Your task to perform on an android device: Search for vegetarian restaurants on Maps Image 0: 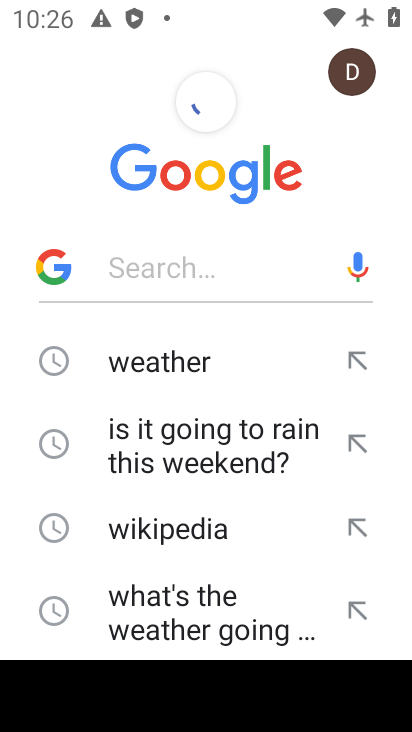
Step 0: press home button
Your task to perform on an android device: Search for vegetarian restaurants on Maps Image 1: 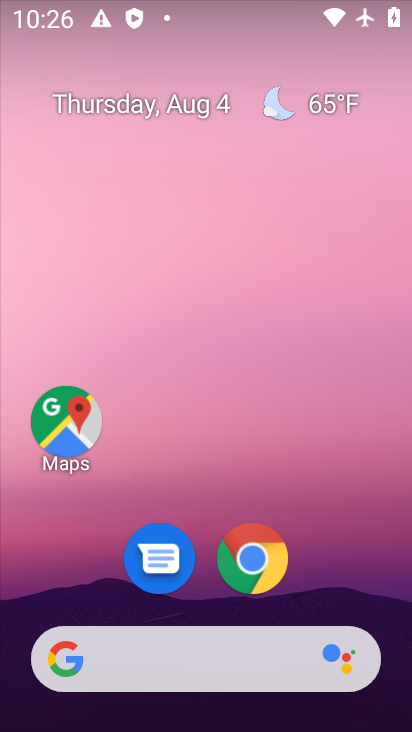
Step 1: drag from (357, 500) to (308, 56)
Your task to perform on an android device: Search for vegetarian restaurants on Maps Image 2: 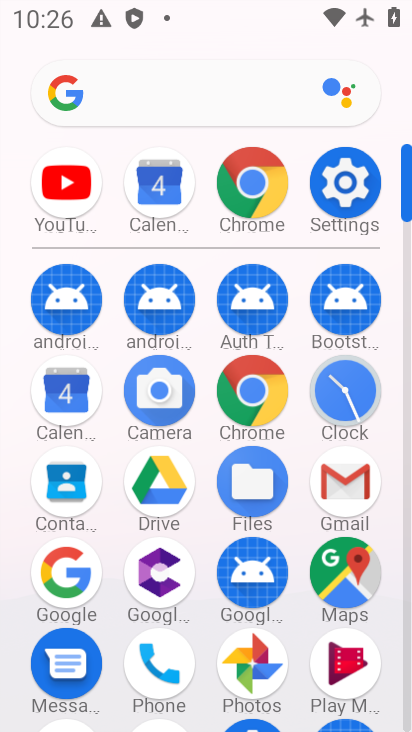
Step 2: click (351, 577)
Your task to perform on an android device: Search for vegetarian restaurants on Maps Image 3: 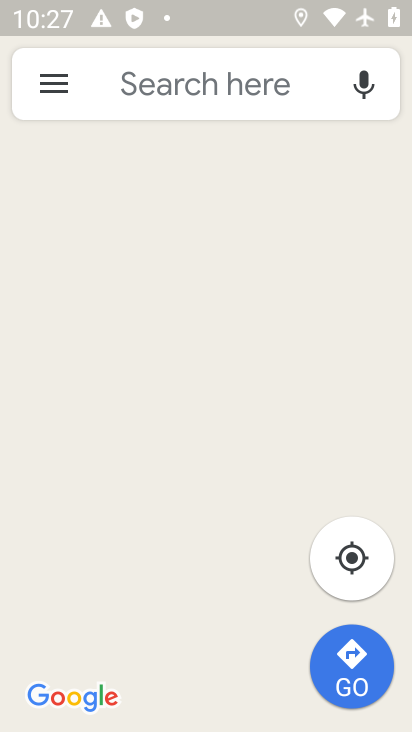
Step 3: click (188, 69)
Your task to perform on an android device: Search for vegetarian restaurants on Maps Image 4: 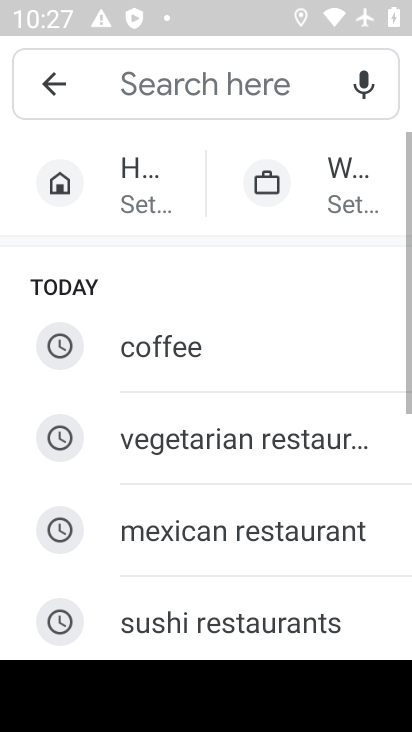
Step 4: click (196, 78)
Your task to perform on an android device: Search for vegetarian restaurants on Maps Image 5: 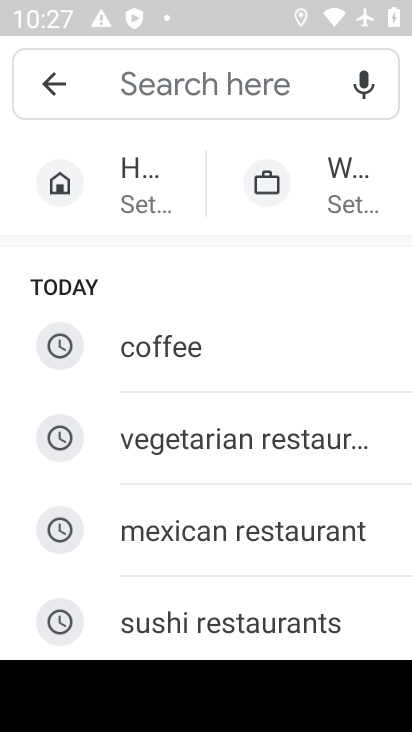
Step 5: type "vegetarian restaurants"
Your task to perform on an android device: Search for vegetarian restaurants on Maps Image 6: 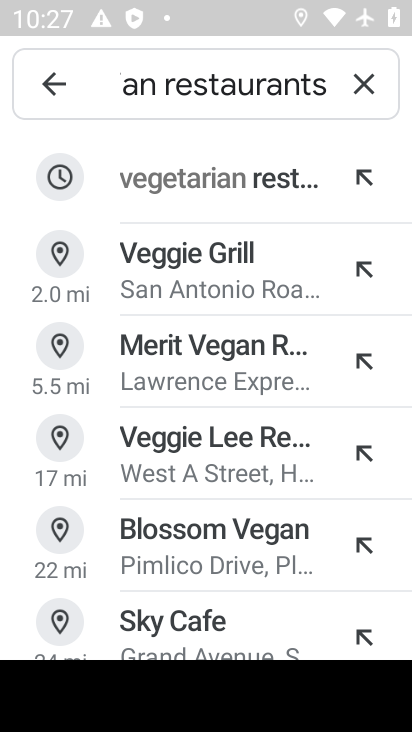
Step 6: press enter
Your task to perform on an android device: Search for vegetarian restaurants on Maps Image 7: 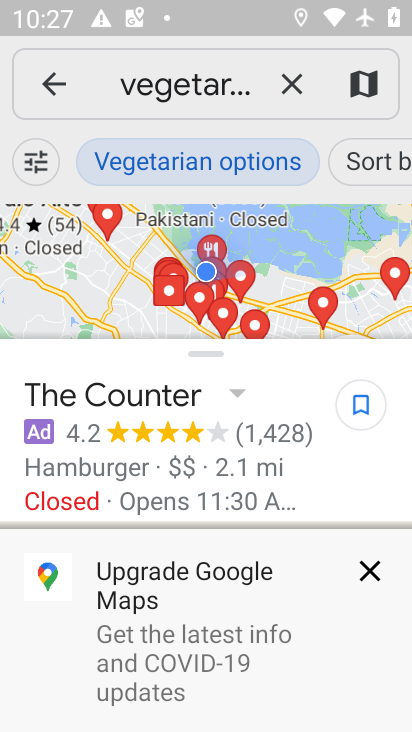
Step 7: task complete